Your task to perform on an android device: empty trash in the gmail app Image 0: 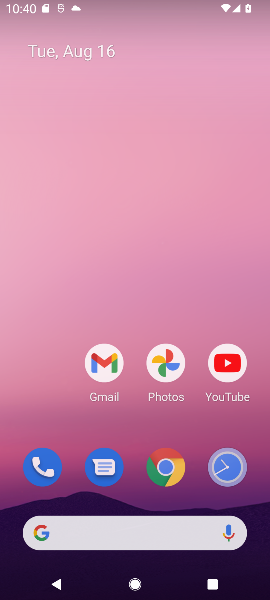
Step 0: click (101, 75)
Your task to perform on an android device: empty trash in the gmail app Image 1: 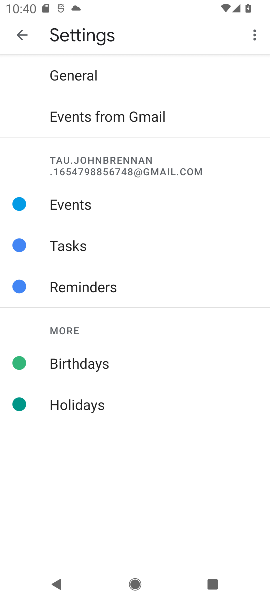
Step 1: press home button
Your task to perform on an android device: empty trash in the gmail app Image 2: 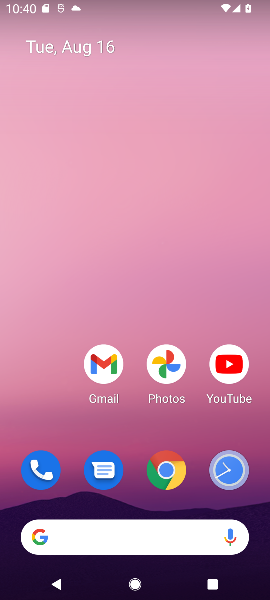
Step 2: drag from (32, 407) to (127, 3)
Your task to perform on an android device: empty trash in the gmail app Image 3: 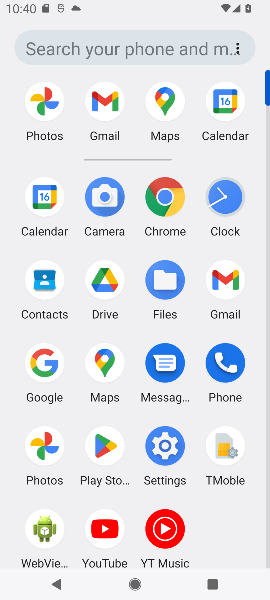
Step 3: click (109, 102)
Your task to perform on an android device: empty trash in the gmail app Image 4: 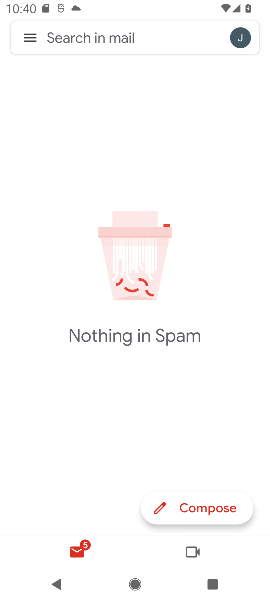
Step 4: click (30, 38)
Your task to perform on an android device: empty trash in the gmail app Image 5: 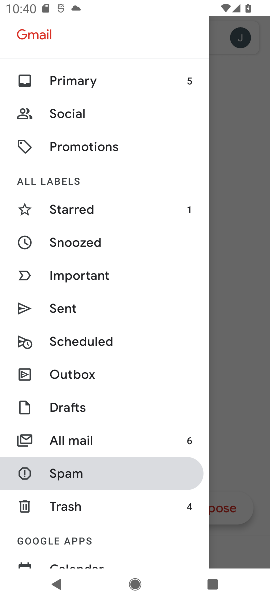
Step 5: click (69, 503)
Your task to perform on an android device: empty trash in the gmail app Image 6: 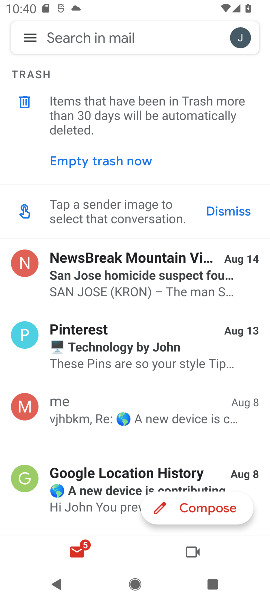
Step 6: click (119, 157)
Your task to perform on an android device: empty trash in the gmail app Image 7: 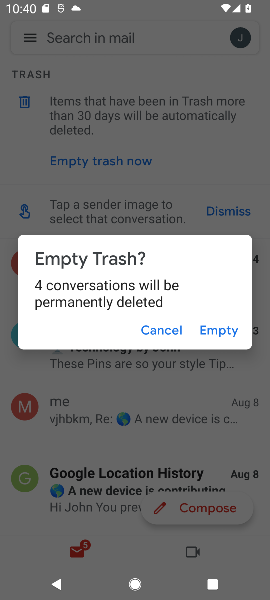
Step 7: click (223, 328)
Your task to perform on an android device: empty trash in the gmail app Image 8: 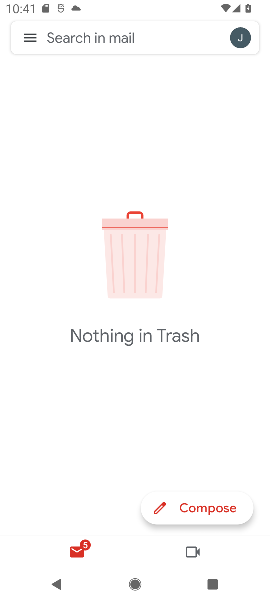
Step 8: task complete